Your task to perform on an android device: turn on showing notifications on the lock screen Image 0: 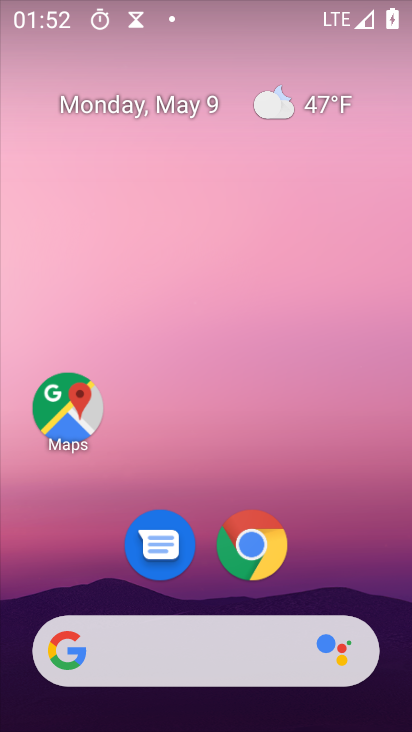
Step 0: drag from (303, 644) to (294, 11)
Your task to perform on an android device: turn on showing notifications on the lock screen Image 1: 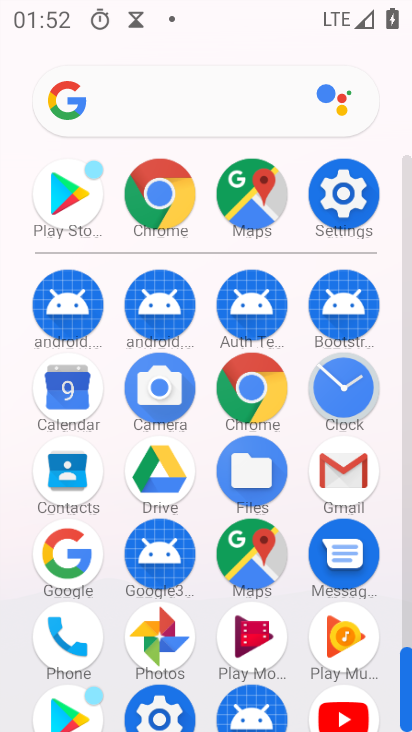
Step 1: click (364, 188)
Your task to perform on an android device: turn on showing notifications on the lock screen Image 2: 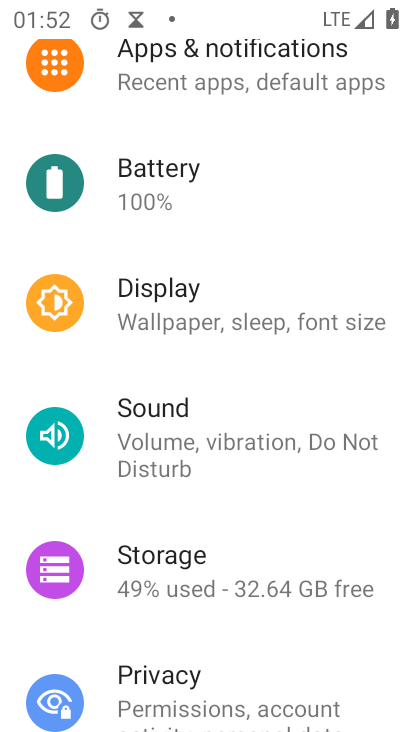
Step 2: click (218, 82)
Your task to perform on an android device: turn on showing notifications on the lock screen Image 3: 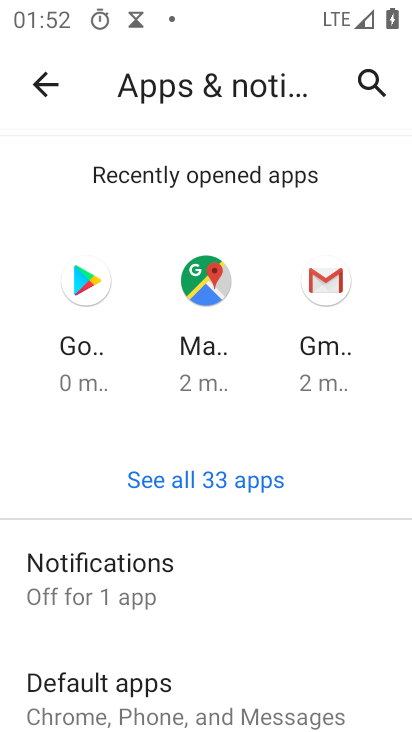
Step 3: click (159, 585)
Your task to perform on an android device: turn on showing notifications on the lock screen Image 4: 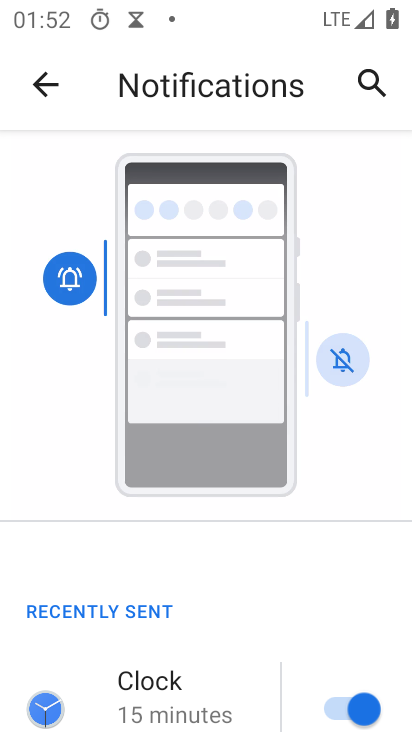
Step 4: press back button
Your task to perform on an android device: turn on showing notifications on the lock screen Image 5: 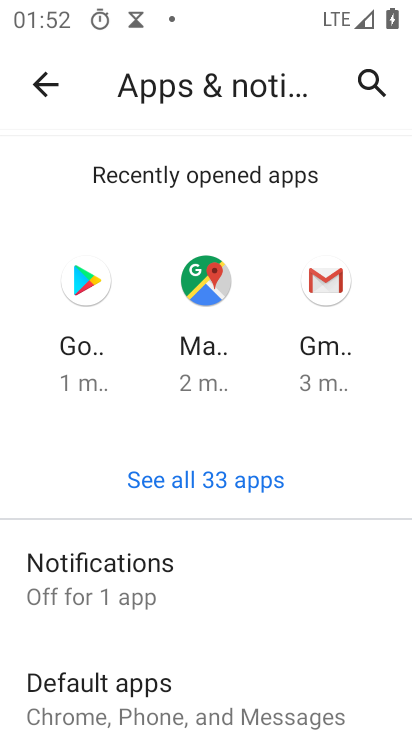
Step 5: drag from (288, 630) to (244, 48)
Your task to perform on an android device: turn on showing notifications on the lock screen Image 6: 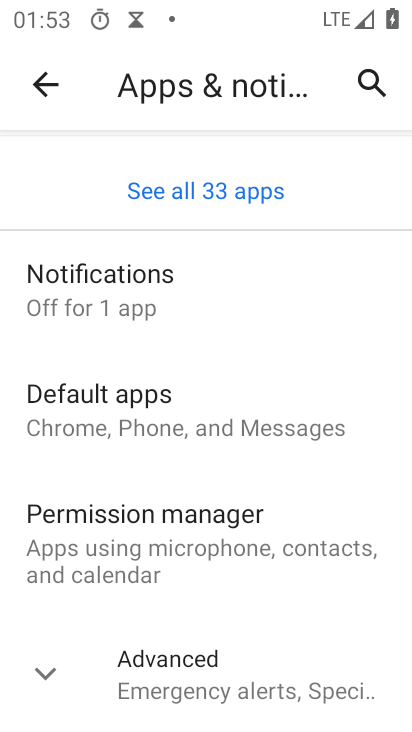
Step 6: drag from (237, 676) to (266, 535)
Your task to perform on an android device: turn on showing notifications on the lock screen Image 7: 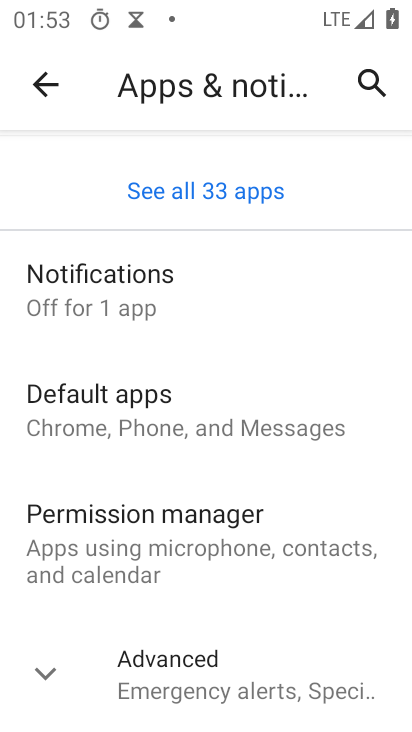
Step 7: click (217, 289)
Your task to perform on an android device: turn on showing notifications on the lock screen Image 8: 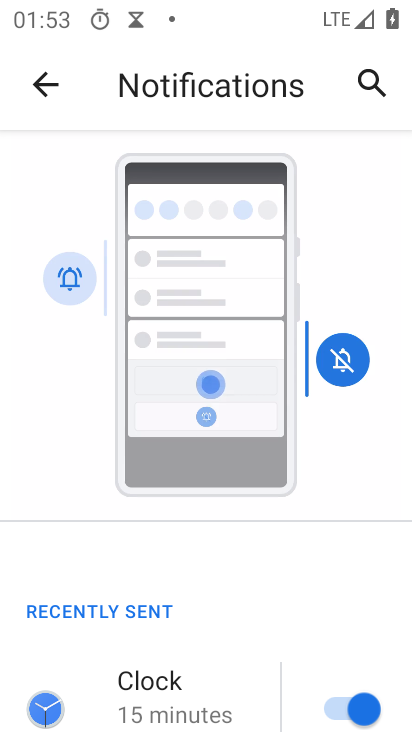
Step 8: drag from (264, 663) to (276, 161)
Your task to perform on an android device: turn on showing notifications on the lock screen Image 9: 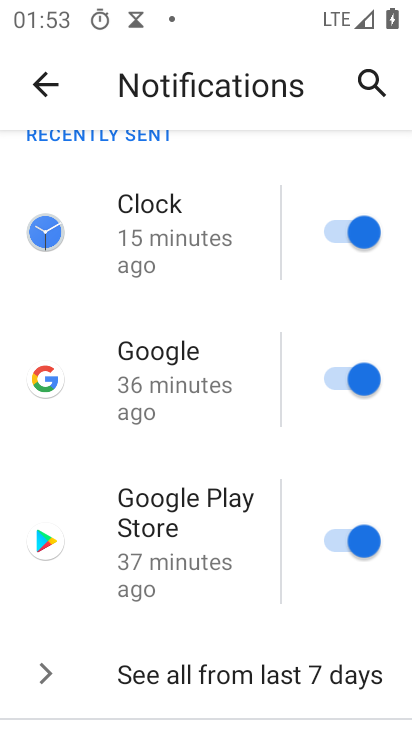
Step 9: drag from (218, 655) to (157, 7)
Your task to perform on an android device: turn on showing notifications on the lock screen Image 10: 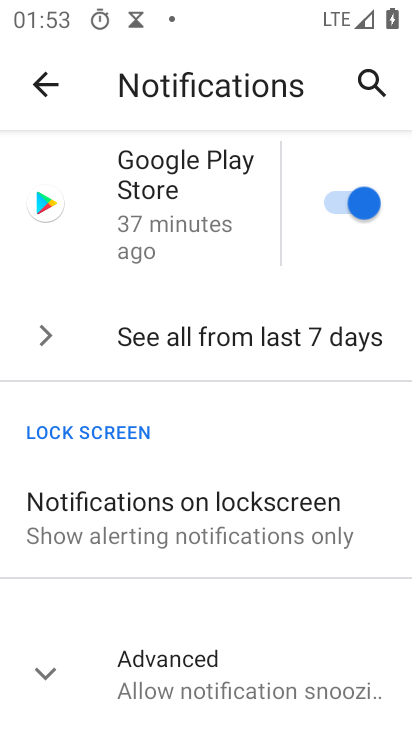
Step 10: click (240, 496)
Your task to perform on an android device: turn on showing notifications on the lock screen Image 11: 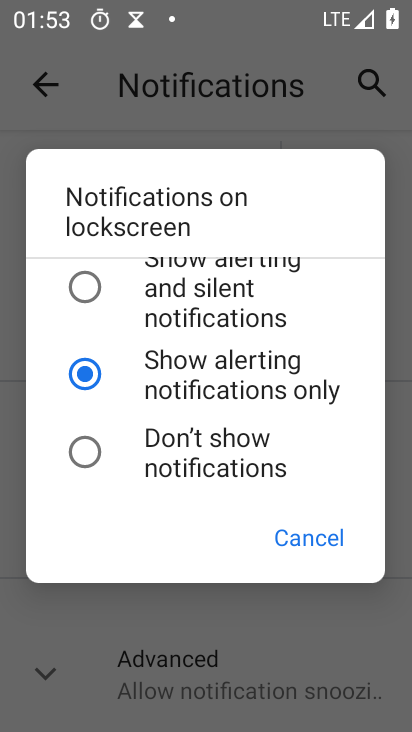
Step 11: click (190, 305)
Your task to perform on an android device: turn on showing notifications on the lock screen Image 12: 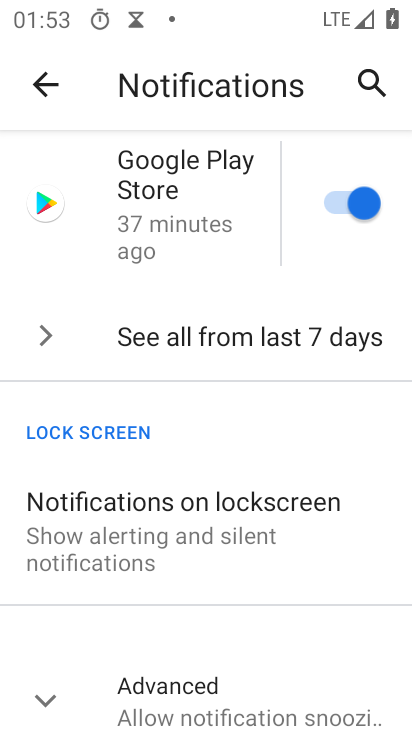
Step 12: task complete